Your task to perform on an android device: toggle translation in the chrome app Image 0: 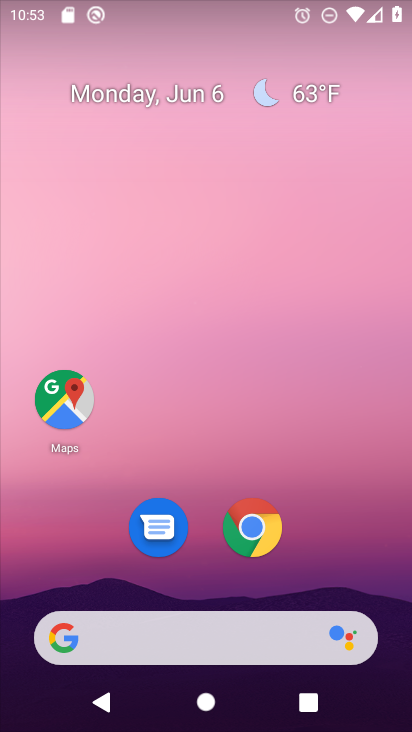
Step 0: drag from (347, 556) to (359, 222)
Your task to perform on an android device: toggle translation in the chrome app Image 1: 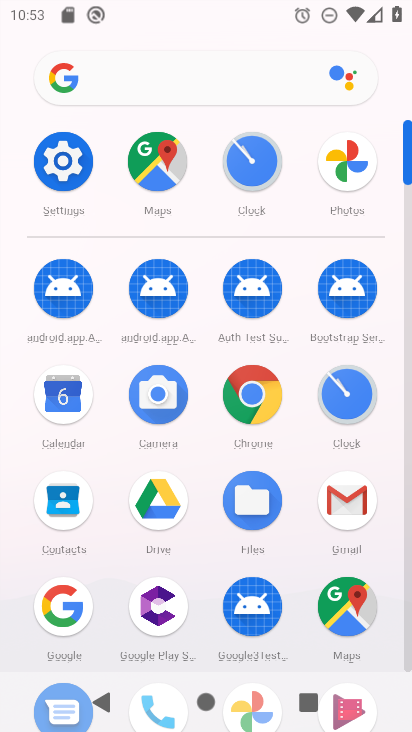
Step 1: click (266, 410)
Your task to perform on an android device: toggle translation in the chrome app Image 2: 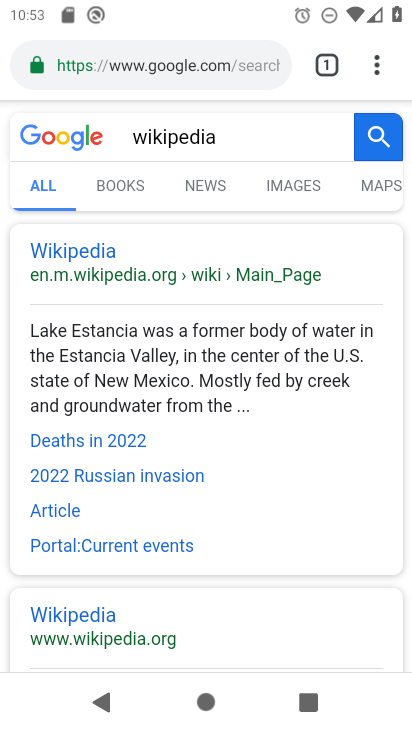
Step 2: drag from (329, 489) to (323, 364)
Your task to perform on an android device: toggle translation in the chrome app Image 3: 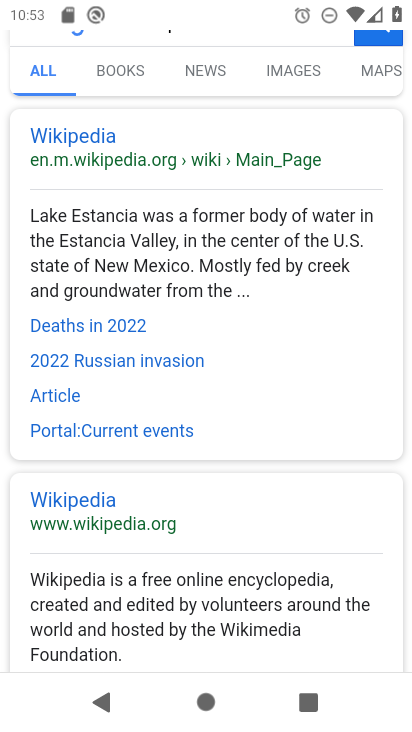
Step 3: drag from (300, 504) to (295, 390)
Your task to perform on an android device: toggle translation in the chrome app Image 4: 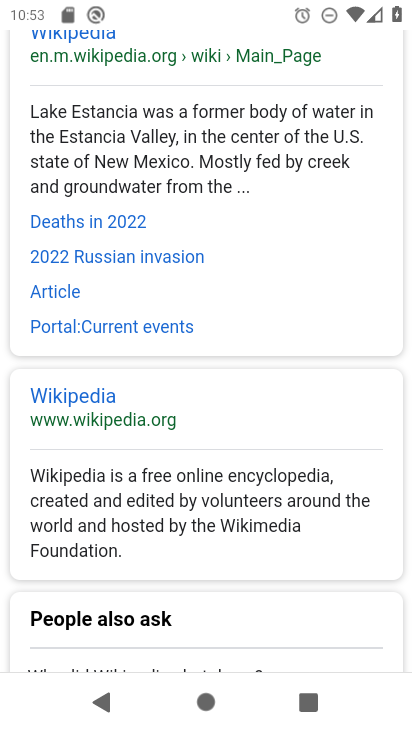
Step 4: drag from (315, 556) to (311, 403)
Your task to perform on an android device: toggle translation in the chrome app Image 5: 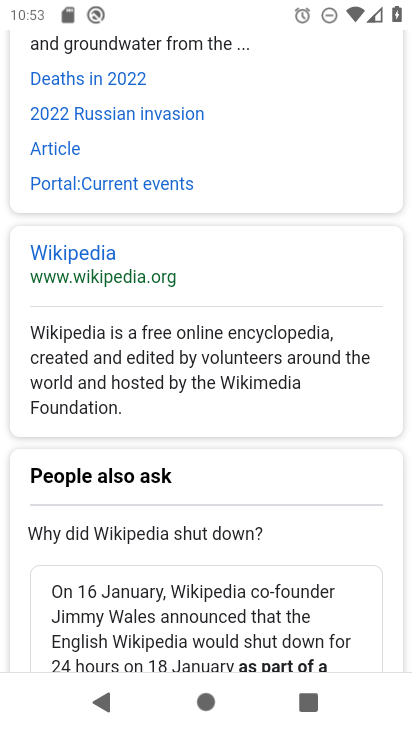
Step 5: drag from (354, 517) to (343, 401)
Your task to perform on an android device: toggle translation in the chrome app Image 6: 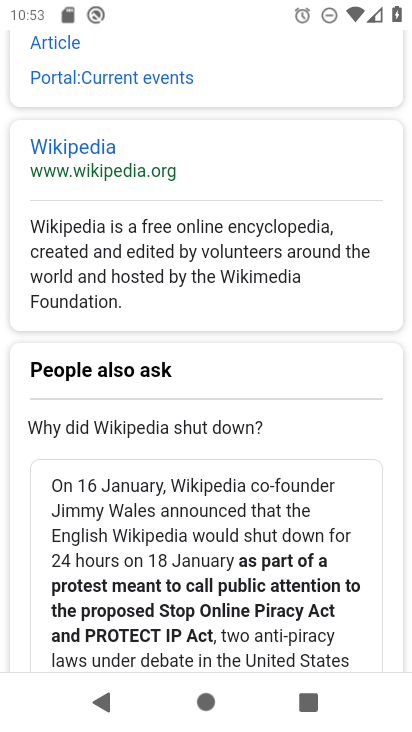
Step 6: drag from (333, 257) to (338, 422)
Your task to perform on an android device: toggle translation in the chrome app Image 7: 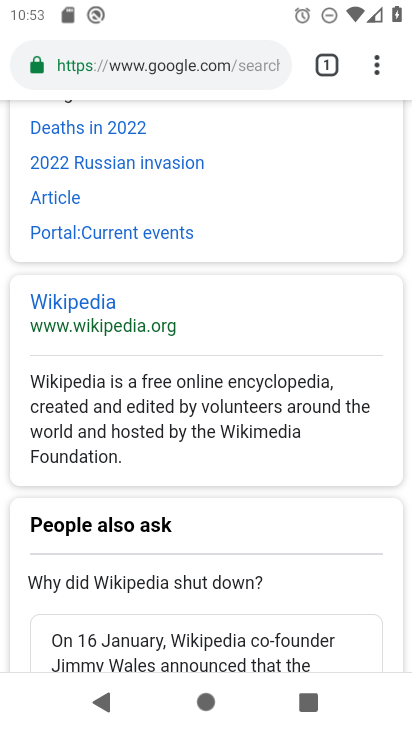
Step 7: drag from (329, 179) to (337, 347)
Your task to perform on an android device: toggle translation in the chrome app Image 8: 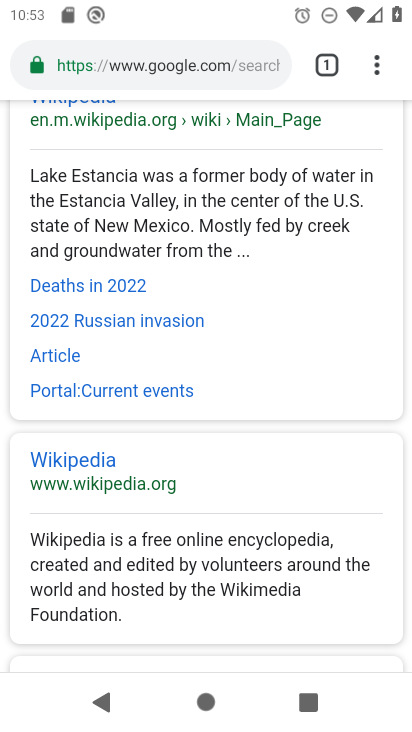
Step 8: click (377, 76)
Your task to perform on an android device: toggle translation in the chrome app Image 9: 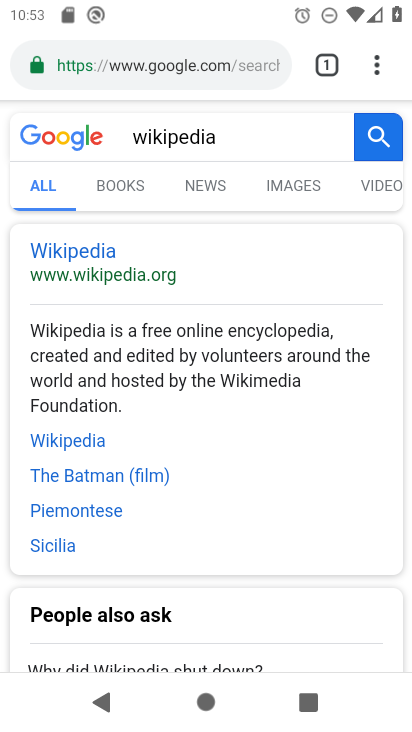
Step 9: click (381, 71)
Your task to perform on an android device: toggle translation in the chrome app Image 10: 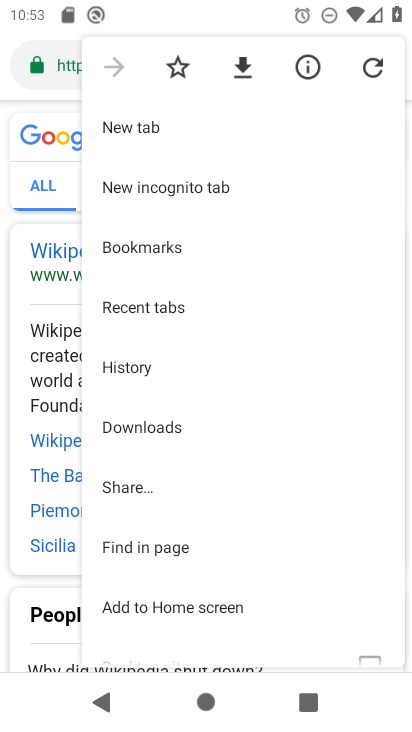
Step 10: drag from (277, 415) to (296, 298)
Your task to perform on an android device: toggle translation in the chrome app Image 11: 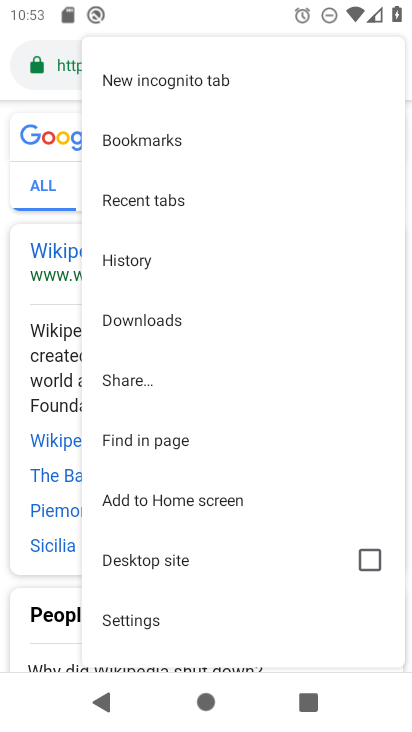
Step 11: drag from (273, 523) to (267, 386)
Your task to perform on an android device: toggle translation in the chrome app Image 12: 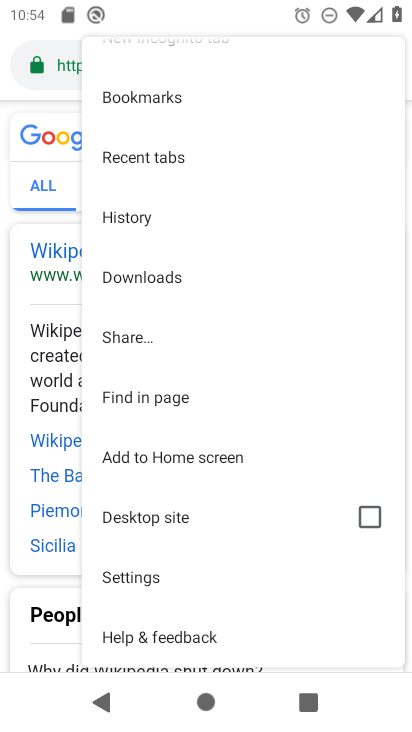
Step 12: click (142, 589)
Your task to perform on an android device: toggle translation in the chrome app Image 13: 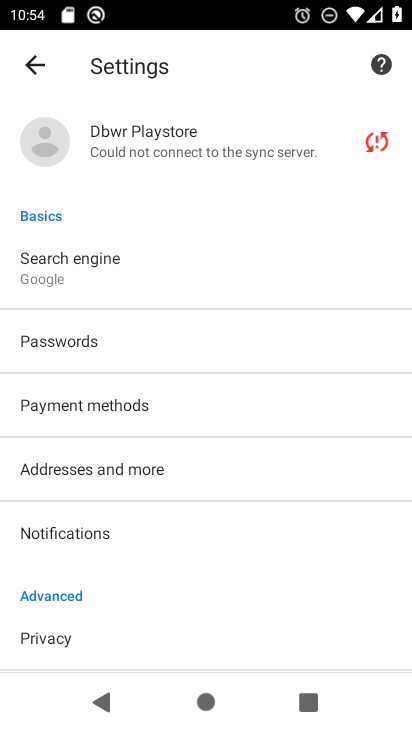
Step 13: drag from (329, 549) to (349, 250)
Your task to perform on an android device: toggle translation in the chrome app Image 14: 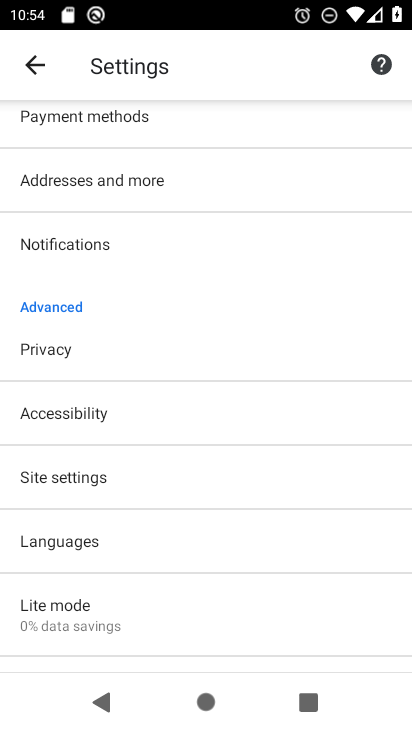
Step 14: drag from (278, 531) to (294, 357)
Your task to perform on an android device: toggle translation in the chrome app Image 15: 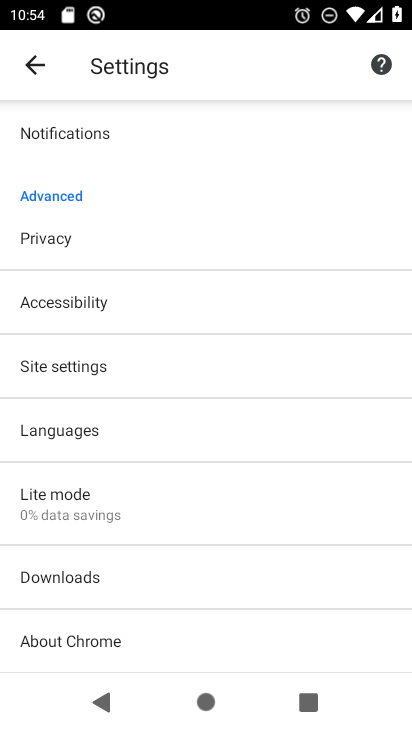
Step 15: click (233, 431)
Your task to perform on an android device: toggle translation in the chrome app Image 16: 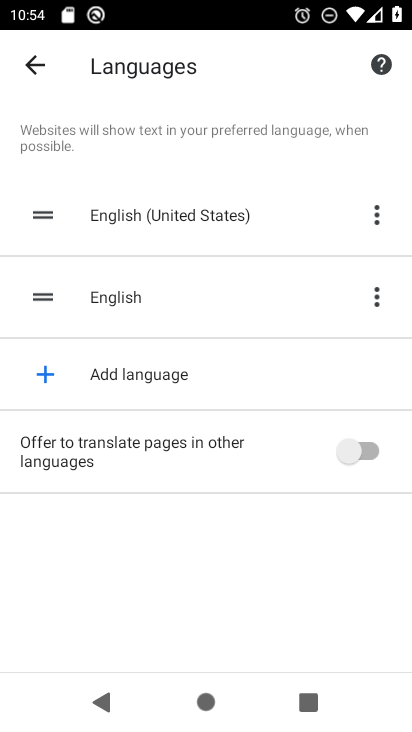
Step 16: click (376, 450)
Your task to perform on an android device: toggle translation in the chrome app Image 17: 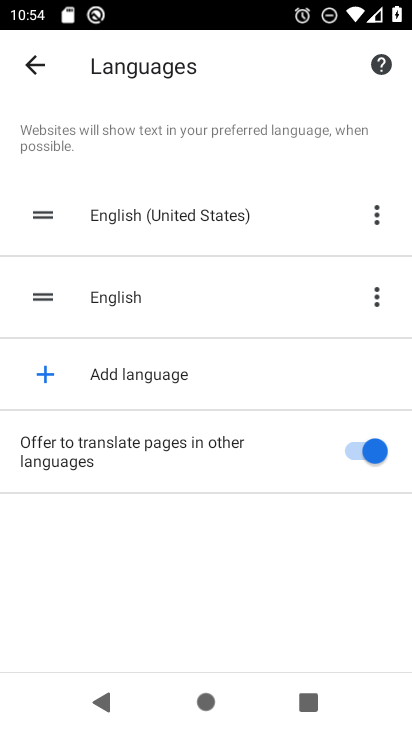
Step 17: task complete